Your task to perform on an android device: Open Youtube and go to "Your channel" Image 0: 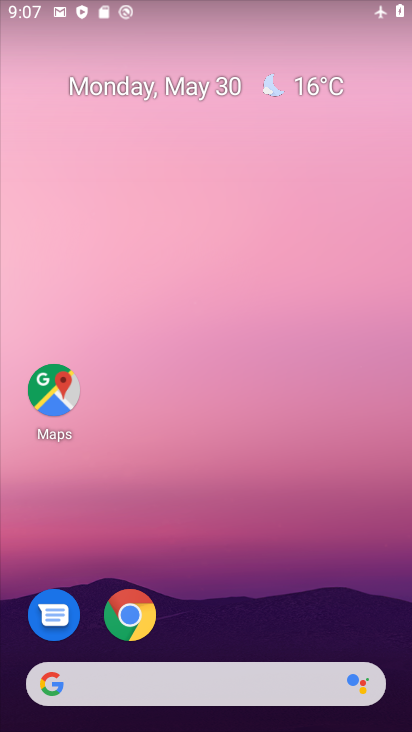
Step 0: drag from (223, 589) to (256, 76)
Your task to perform on an android device: Open Youtube and go to "Your channel" Image 1: 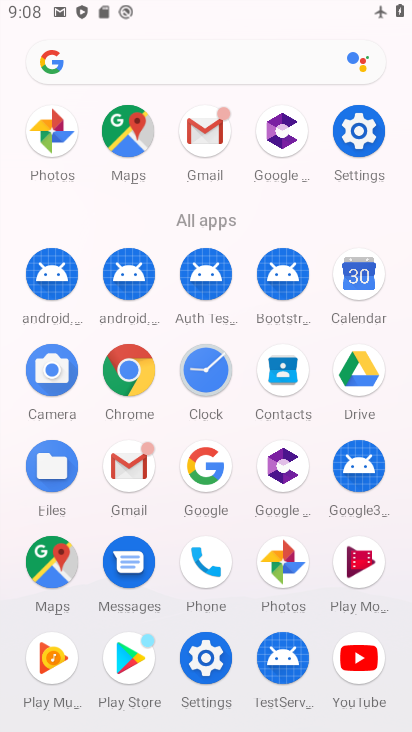
Step 1: click (353, 658)
Your task to perform on an android device: Open Youtube and go to "Your channel" Image 2: 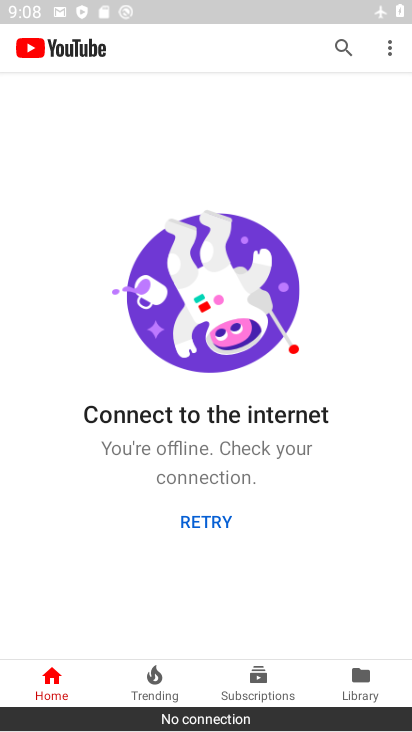
Step 2: click (351, 679)
Your task to perform on an android device: Open Youtube and go to "Your channel" Image 3: 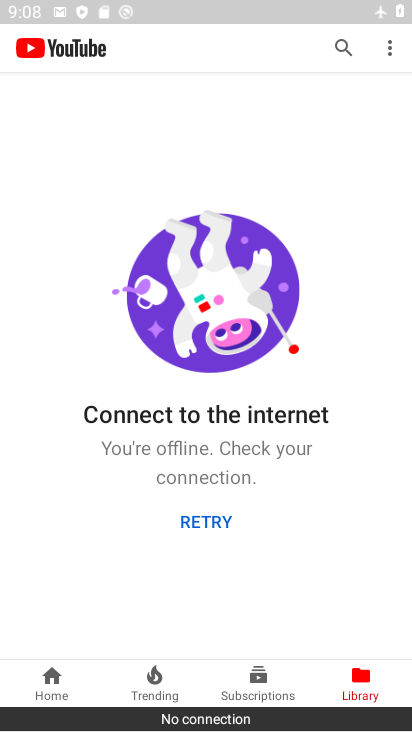
Step 3: click (209, 521)
Your task to perform on an android device: Open Youtube and go to "Your channel" Image 4: 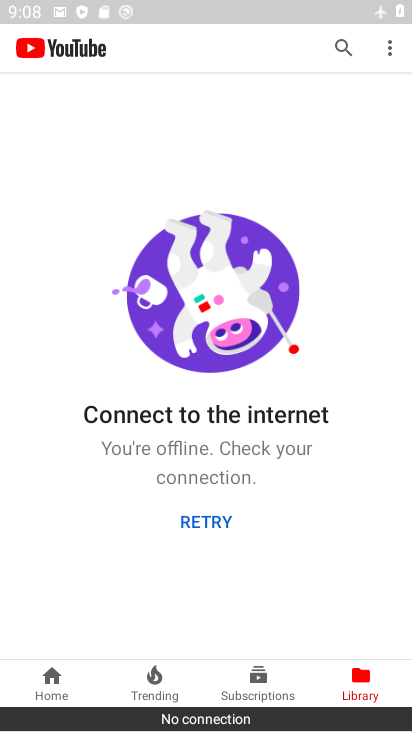
Step 4: task complete